Your task to perform on an android device: Set the phone to "Do not disturb". Image 0: 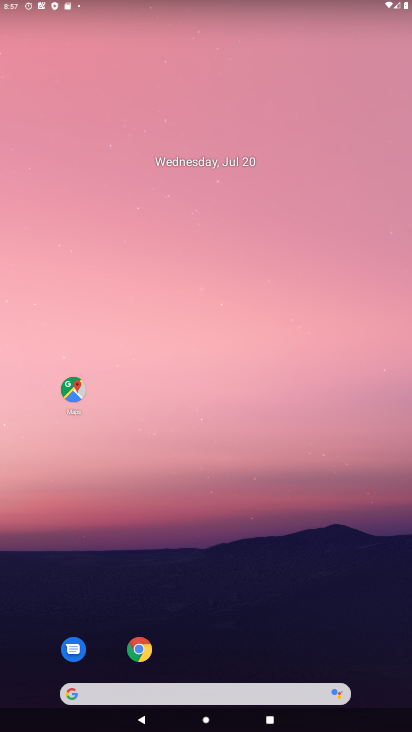
Step 0: drag from (175, 696) to (317, 55)
Your task to perform on an android device: Set the phone to "Do not disturb". Image 1: 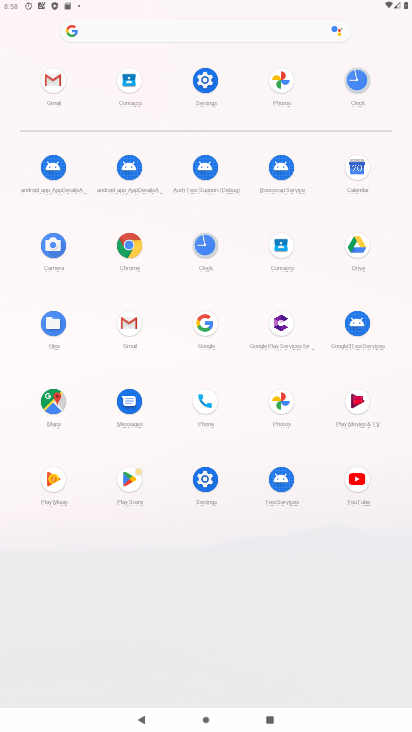
Step 1: click (206, 81)
Your task to perform on an android device: Set the phone to "Do not disturb". Image 2: 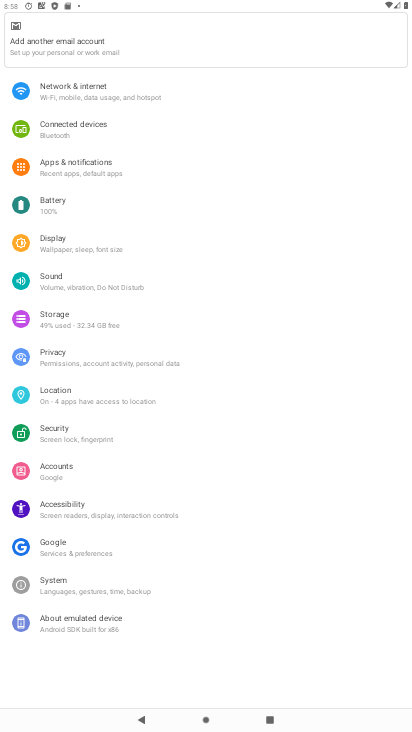
Step 2: click (65, 285)
Your task to perform on an android device: Set the phone to "Do not disturb". Image 3: 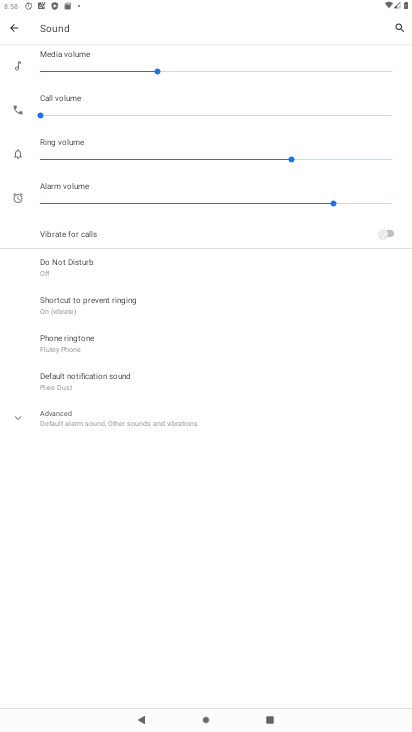
Step 3: click (86, 266)
Your task to perform on an android device: Set the phone to "Do not disturb". Image 4: 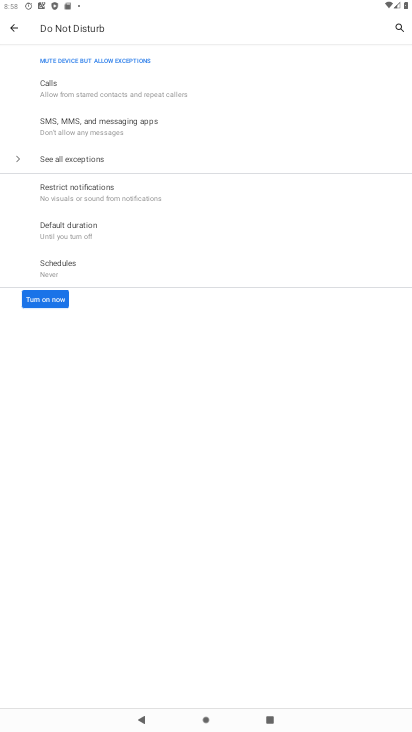
Step 4: click (45, 299)
Your task to perform on an android device: Set the phone to "Do not disturb". Image 5: 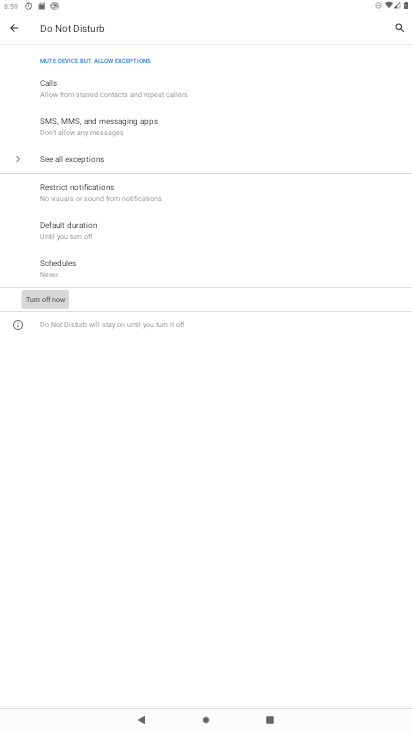
Step 5: task complete